Your task to perform on an android device: turn on translation in the chrome app Image 0: 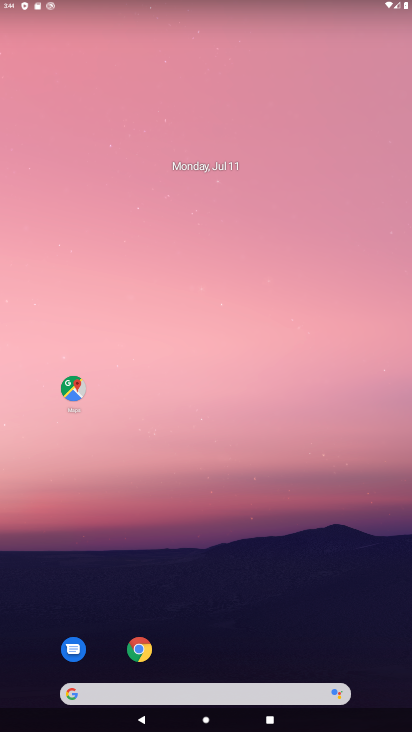
Step 0: click (121, 654)
Your task to perform on an android device: turn on translation in the chrome app Image 1: 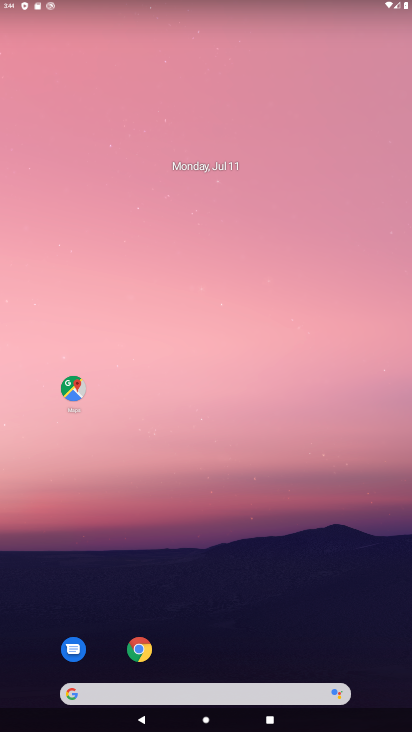
Step 1: click (141, 650)
Your task to perform on an android device: turn on translation in the chrome app Image 2: 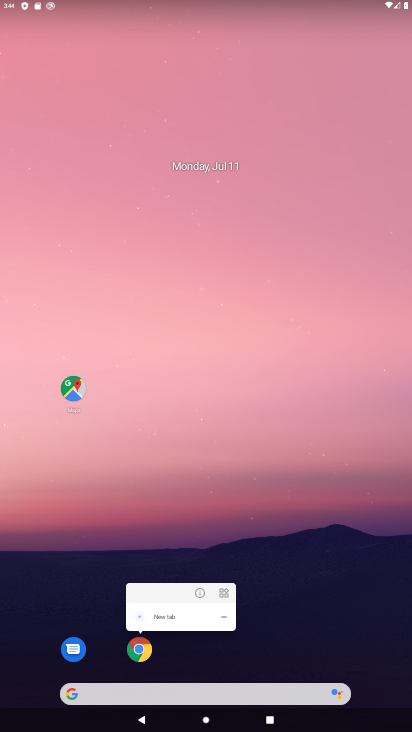
Step 2: click (135, 652)
Your task to perform on an android device: turn on translation in the chrome app Image 3: 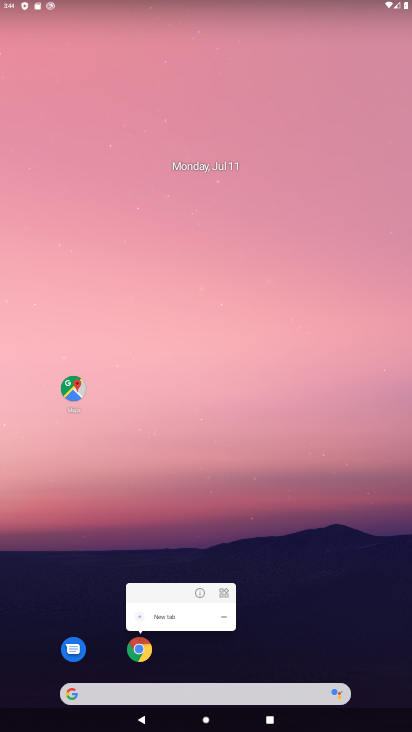
Step 3: click (134, 648)
Your task to perform on an android device: turn on translation in the chrome app Image 4: 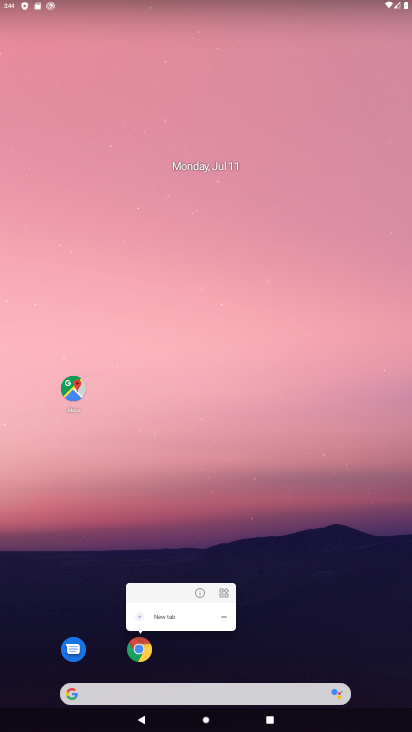
Step 4: click (141, 641)
Your task to perform on an android device: turn on translation in the chrome app Image 5: 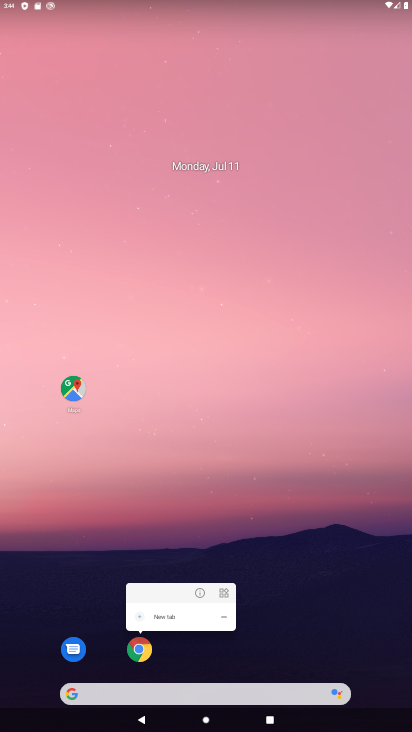
Step 5: click (139, 652)
Your task to perform on an android device: turn on translation in the chrome app Image 6: 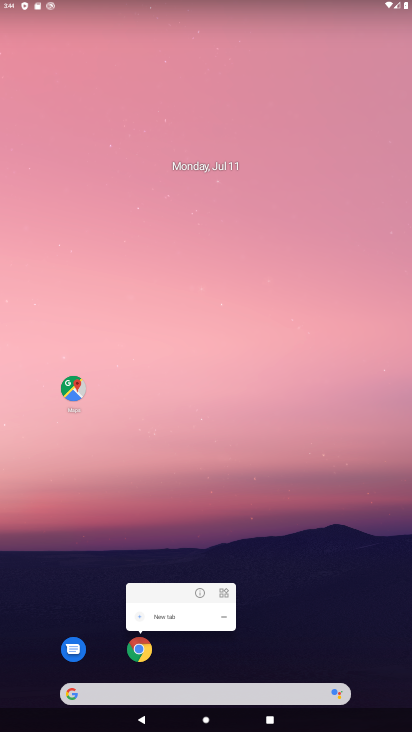
Step 6: click (140, 653)
Your task to perform on an android device: turn on translation in the chrome app Image 7: 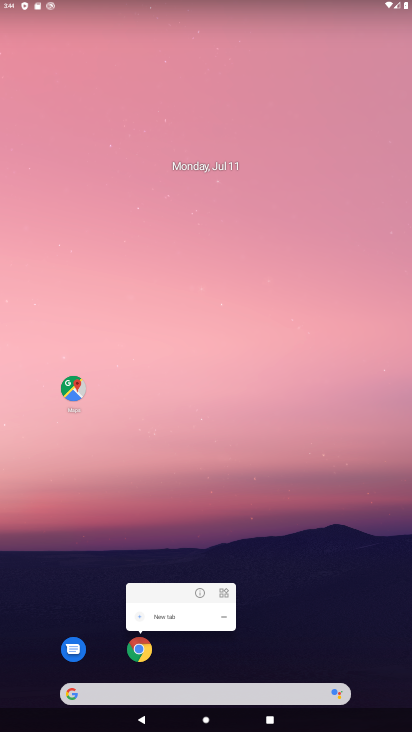
Step 7: task complete